Your task to perform on an android device: check android version Image 0: 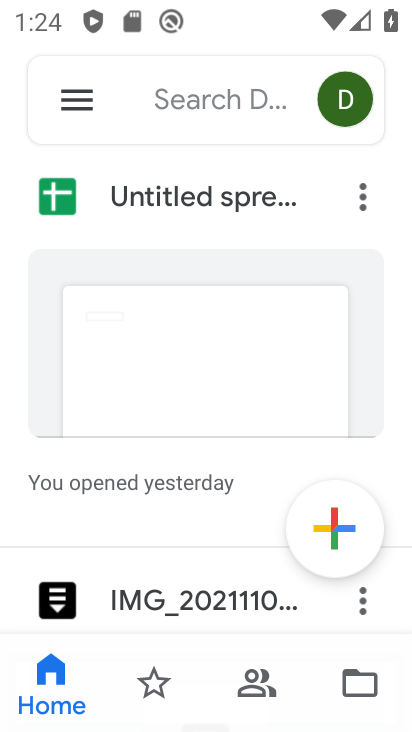
Step 0: drag from (179, 547) to (207, 212)
Your task to perform on an android device: check android version Image 1: 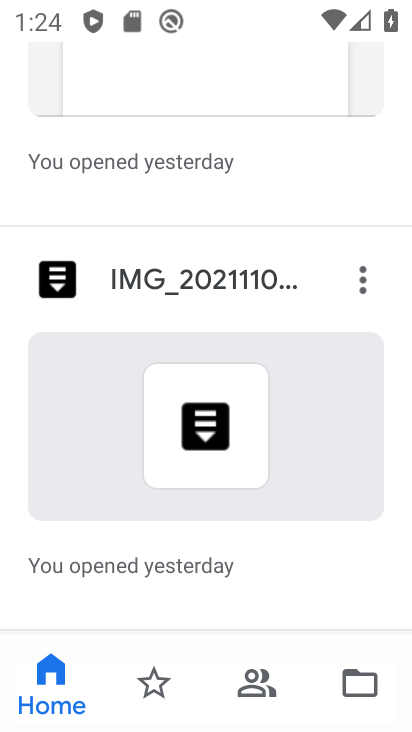
Step 1: drag from (219, 600) to (302, 149)
Your task to perform on an android device: check android version Image 2: 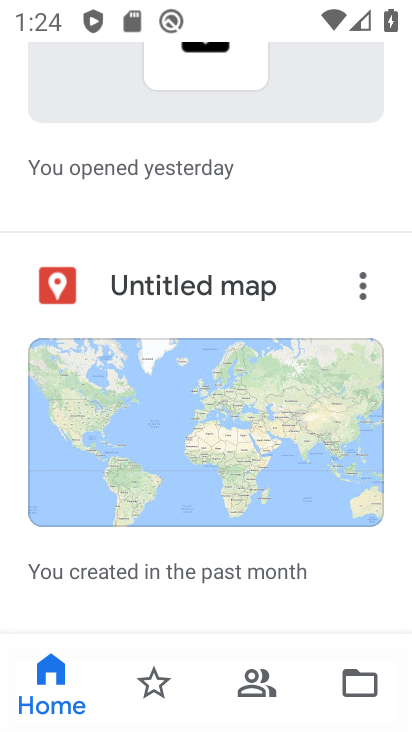
Step 2: drag from (214, 203) to (295, 677)
Your task to perform on an android device: check android version Image 3: 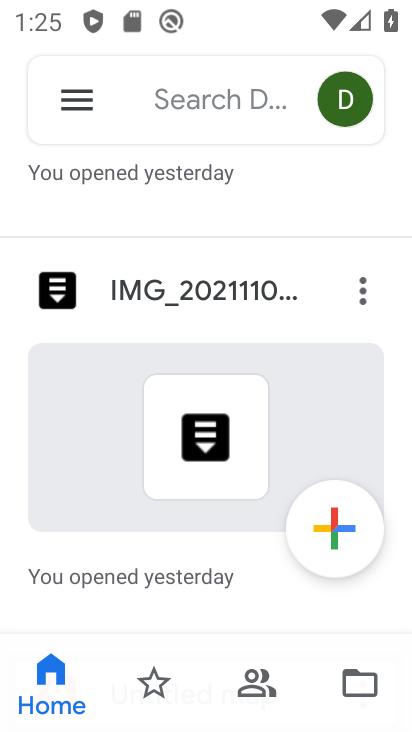
Step 3: drag from (258, 277) to (324, 703)
Your task to perform on an android device: check android version Image 4: 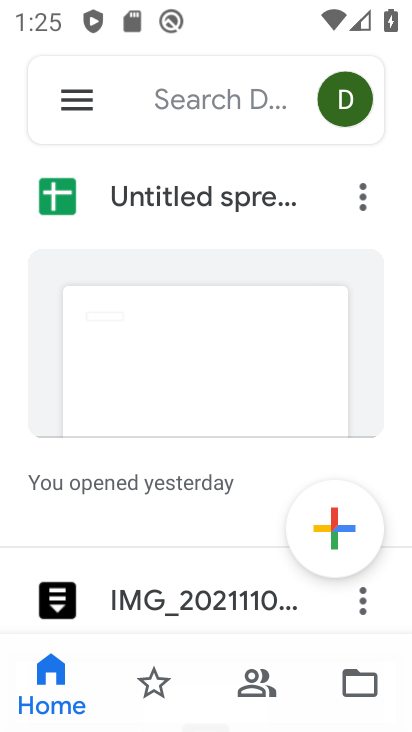
Step 4: drag from (243, 400) to (260, 122)
Your task to perform on an android device: check android version Image 5: 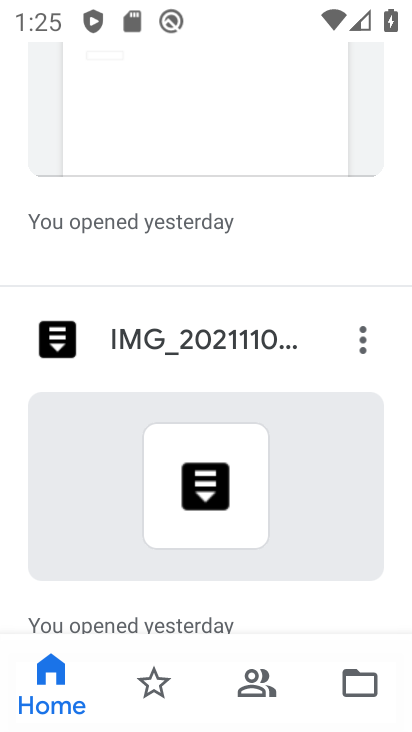
Step 5: drag from (173, 222) to (322, 731)
Your task to perform on an android device: check android version Image 6: 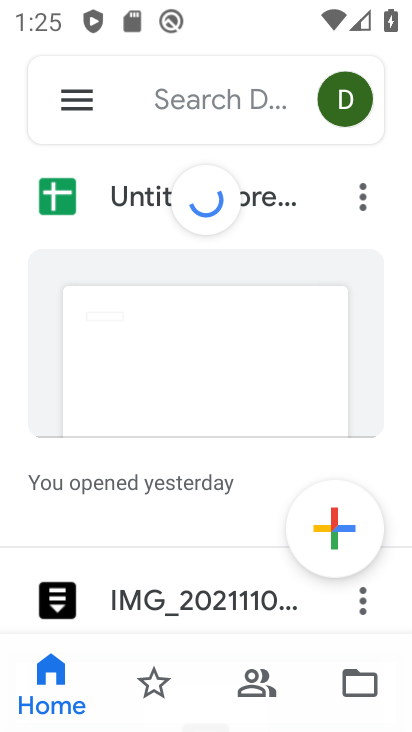
Step 6: click (69, 95)
Your task to perform on an android device: check android version Image 7: 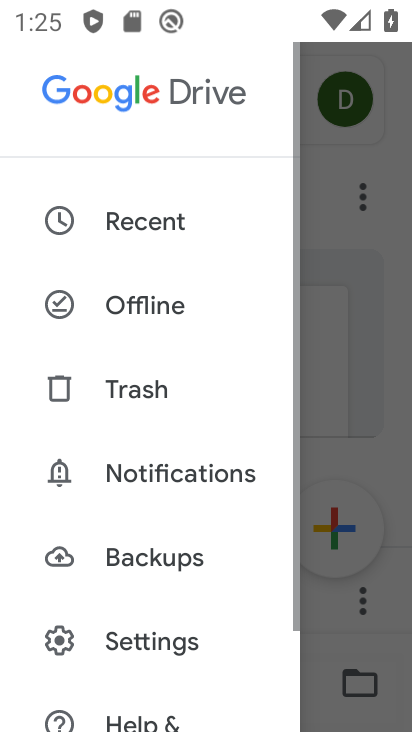
Step 7: drag from (161, 677) to (243, 117)
Your task to perform on an android device: check android version Image 8: 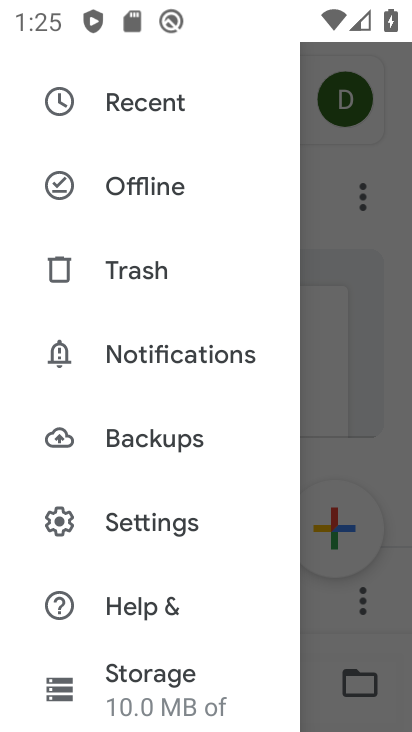
Step 8: drag from (171, 641) to (198, 303)
Your task to perform on an android device: check android version Image 9: 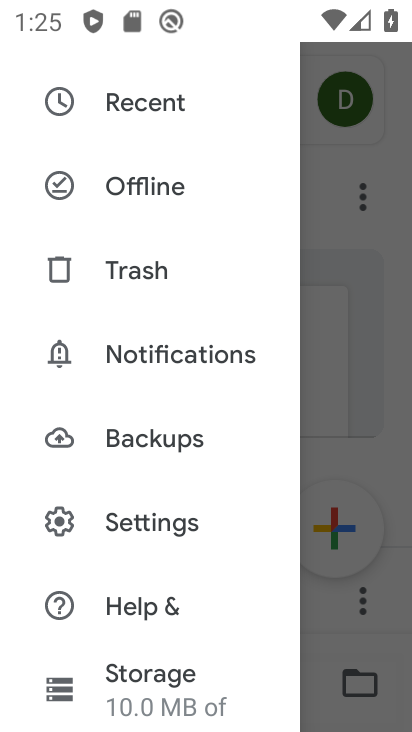
Step 9: click (145, 523)
Your task to perform on an android device: check android version Image 10: 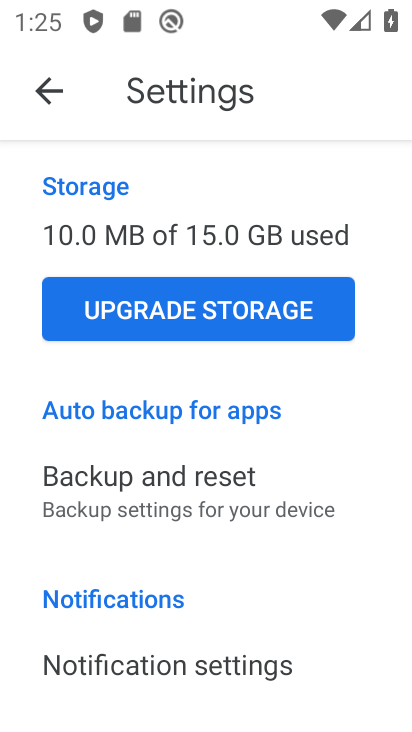
Step 10: press back button
Your task to perform on an android device: check android version Image 11: 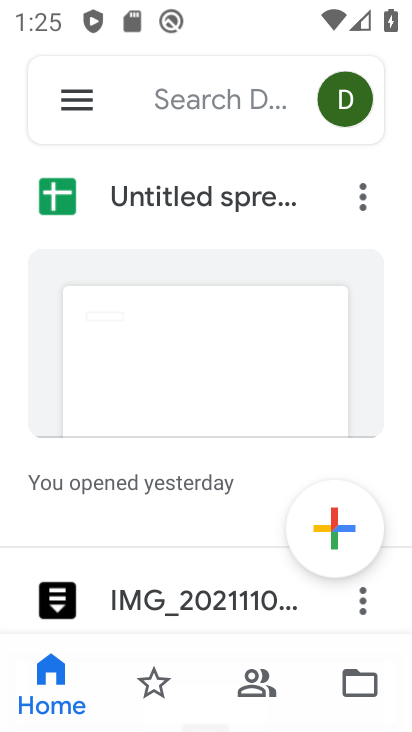
Step 11: press home button
Your task to perform on an android device: check android version Image 12: 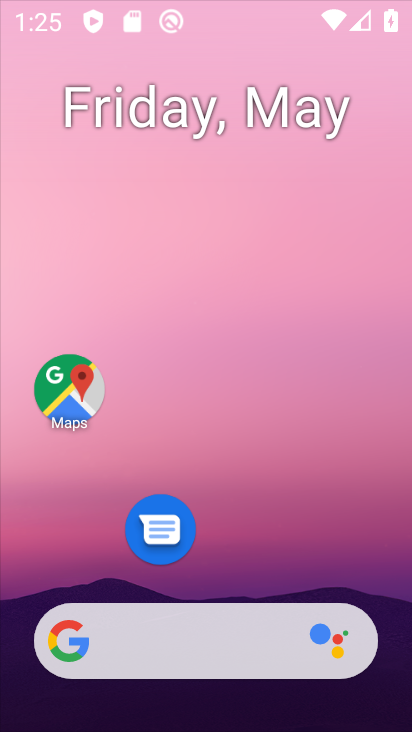
Step 12: drag from (206, 579) to (214, 203)
Your task to perform on an android device: check android version Image 13: 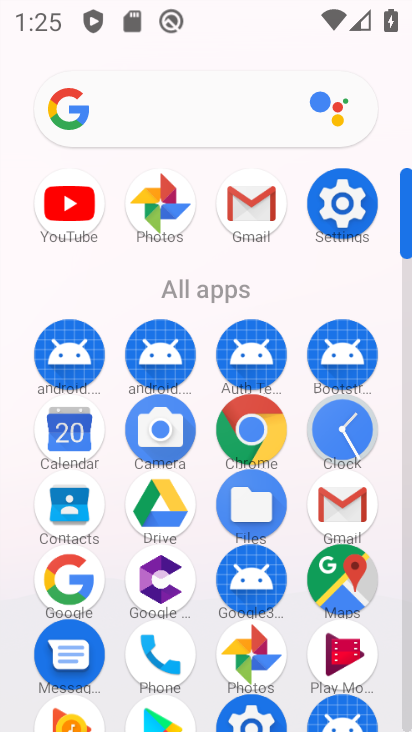
Step 13: click (357, 209)
Your task to perform on an android device: check android version Image 14: 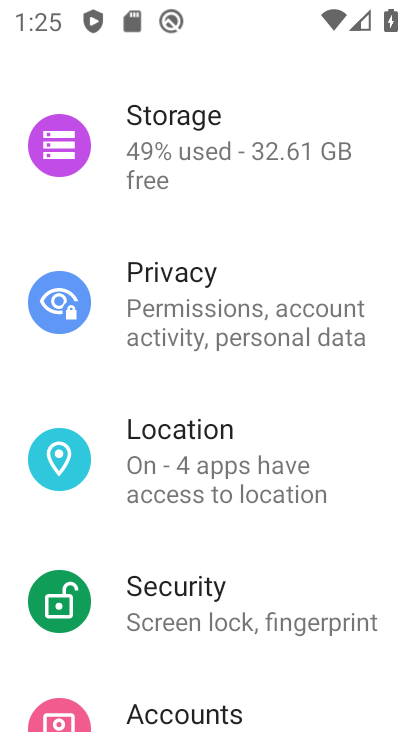
Step 14: drag from (223, 610) to (290, 16)
Your task to perform on an android device: check android version Image 15: 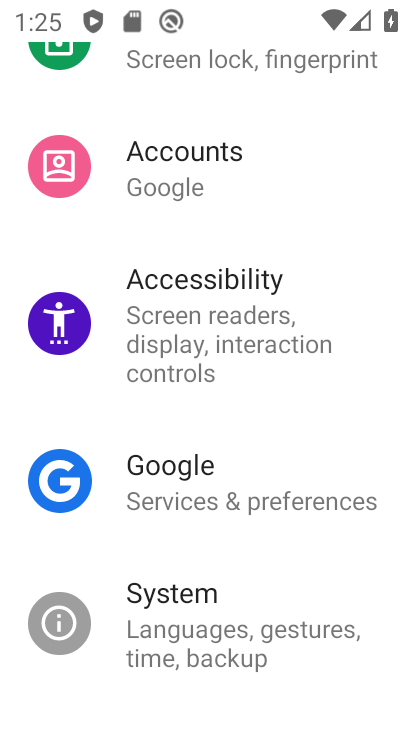
Step 15: drag from (205, 539) to (254, 25)
Your task to perform on an android device: check android version Image 16: 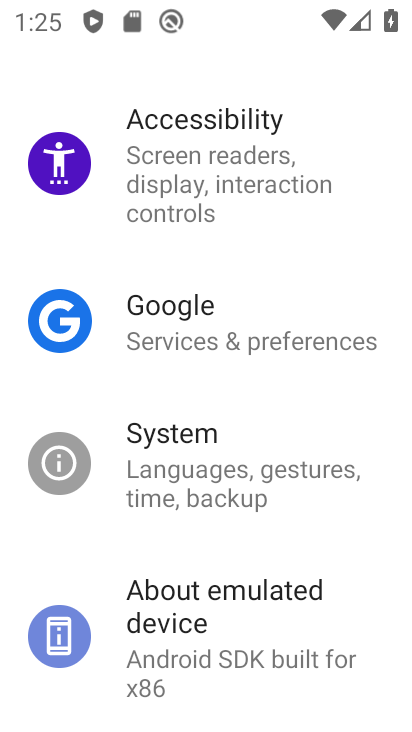
Step 16: click (215, 621)
Your task to perform on an android device: check android version Image 17: 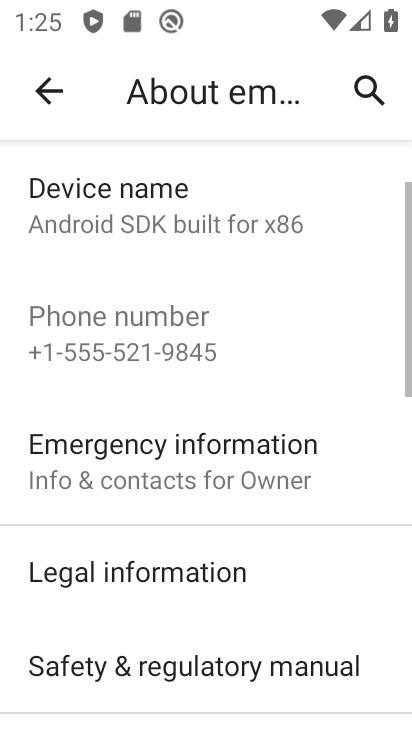
Step 17: drag from (227, 635) to (299, 224)
Your task to perform on an android device: check android version Image 18: 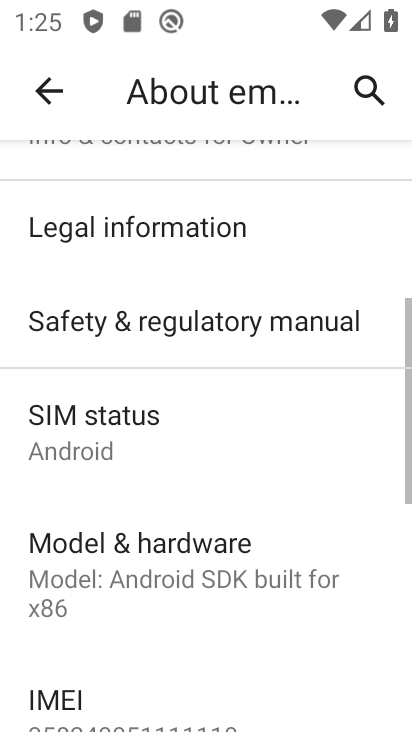
Step 18: drag from (179, 492) to (198, 202)
Your task to perform on an android device: check android version Image 19: 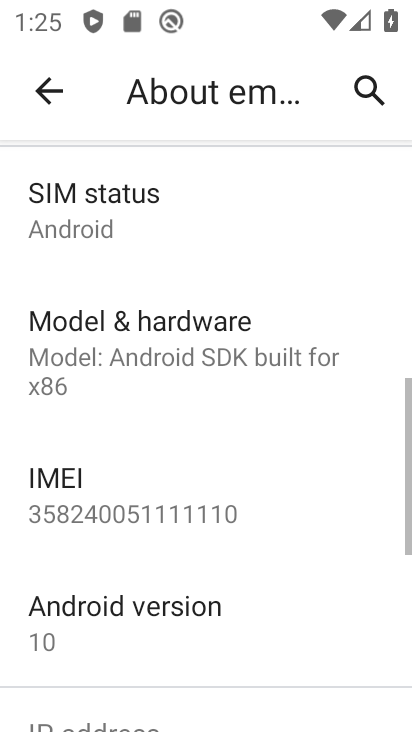
Step 19: click (122, 623)
Your task to perform on an android device: check android version Image 20: 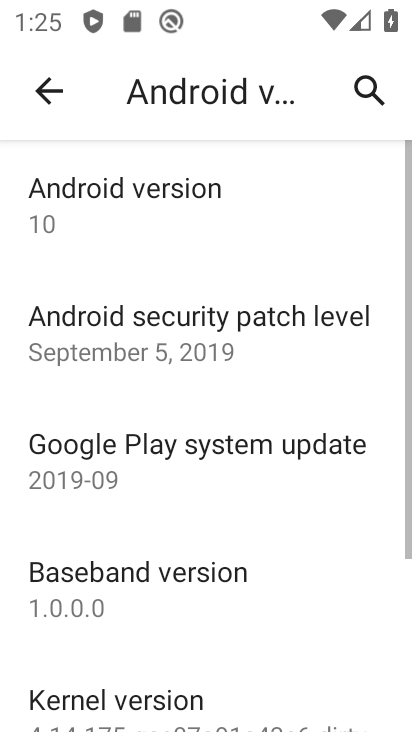
Step 20: task complete